Your task to perform on an android device: Go to wifi settings Image 0: 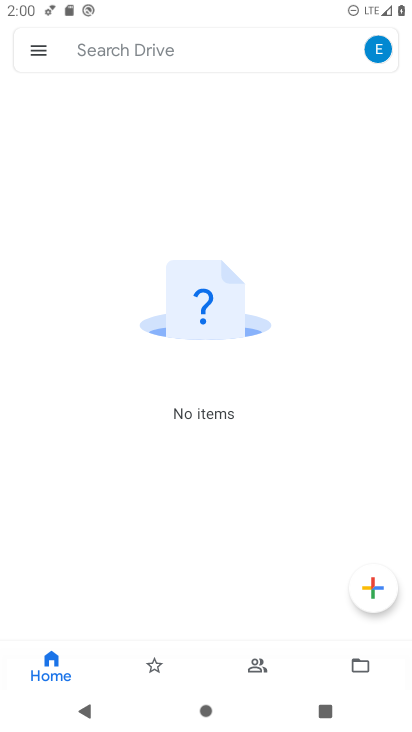
Step 0: press home button
Your task to perform on an android device: Go to wifi settings Image 1: 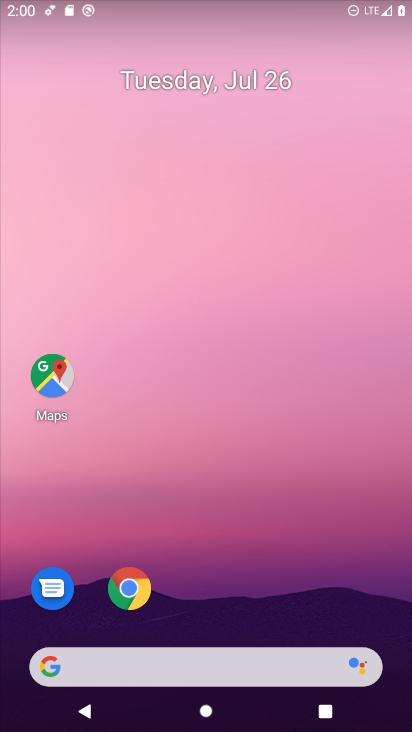
Step 1: drag from (190, 633) to (124, 139)
Your task to perform on an android device: Go to wifi settings Image 2: 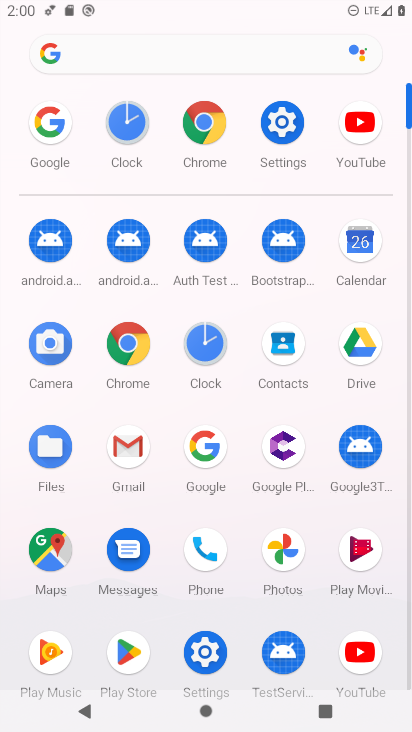
Step 2: click (214, 661)
Your task to perform on an android device: Go to wifi settings Image 3: 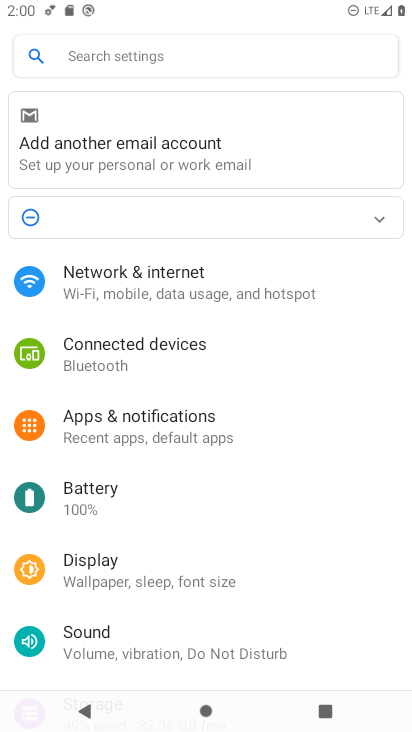
Step 3: click (125, 282)
Your task to perform on an android device: Go to wifi settings Image 4: 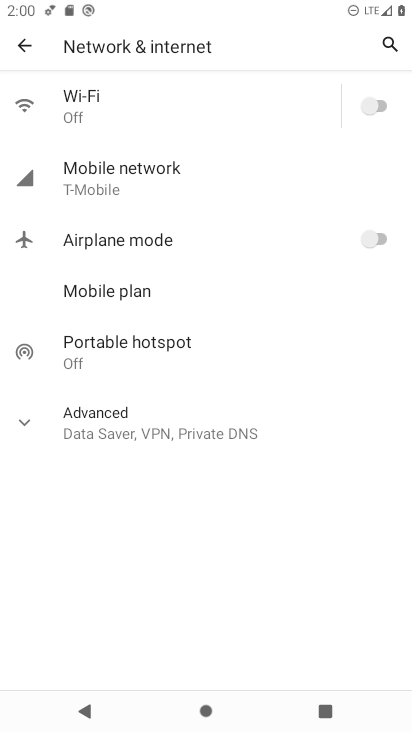
Step 4: click (56, 98)
Your task to perform on an android device: Go to wifi settings Image 5: 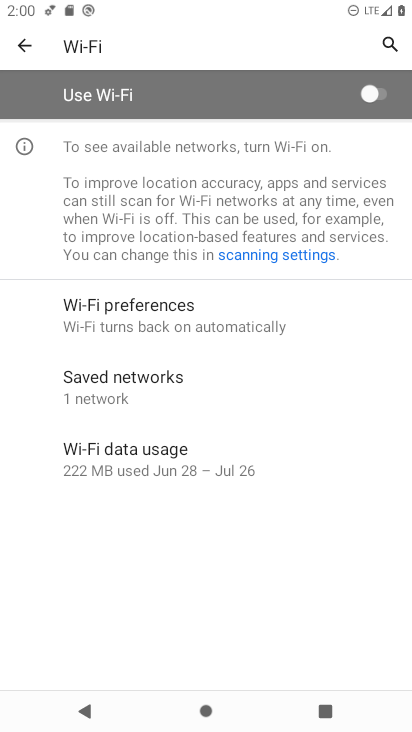
Step 5: task complete